Your task to perform on an android device: Go to Maps Image 0: 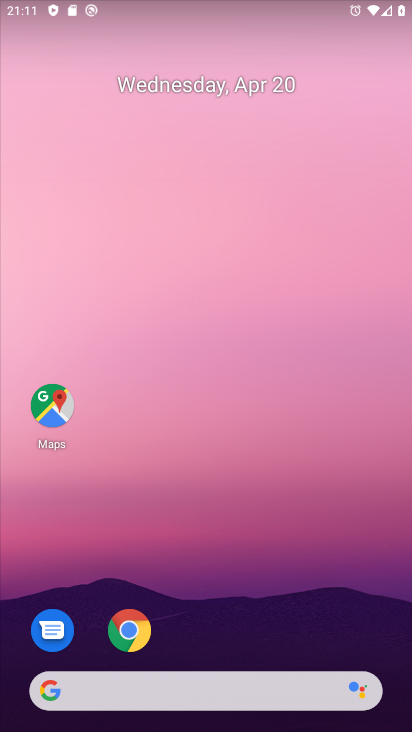
Step 0: click (44, 408)
Your task to perform on an android device: Go to Maps Image 1: 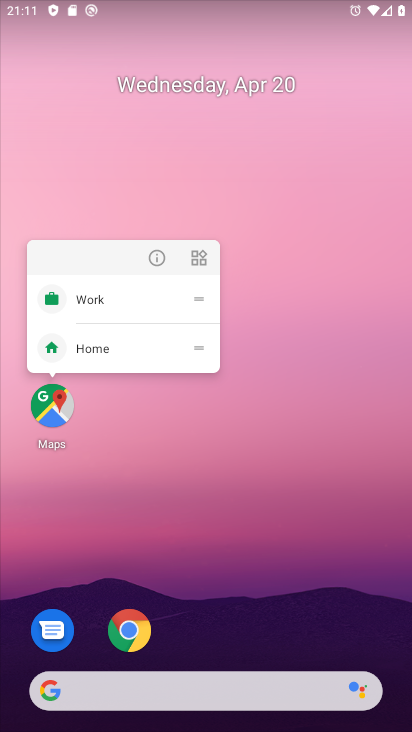
Step 1: click (64, 409)
Your task to perform on an android device: Go to Maps Image 2: 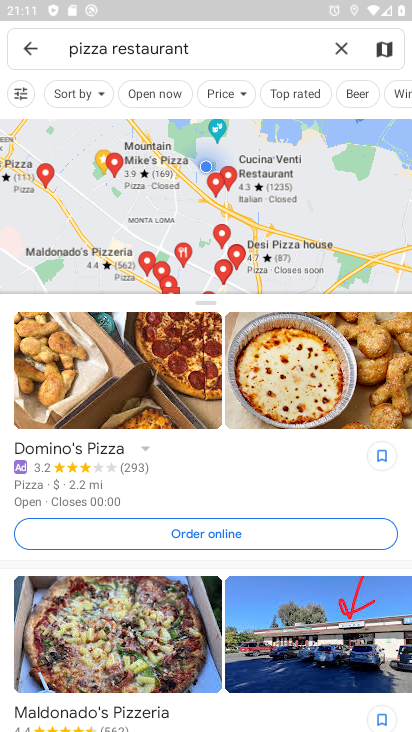
Step 2: task complete